Your task to perform on an android device: empty trash in google photos Image 0: 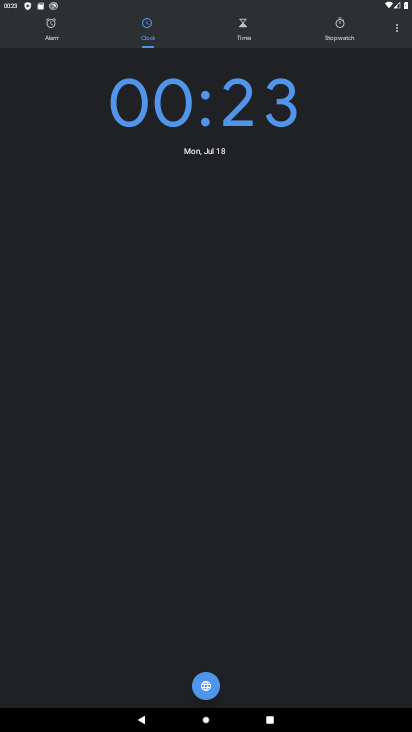
Step 0: press home button
Your task to perform on an android device: empty trash in google photos Image 1: 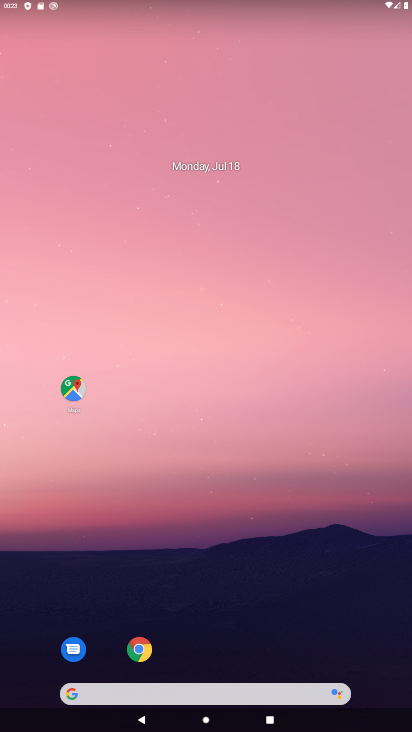
Step 1: drag from (214, 585) to (213, 48)
Your task to perform on an android device: empty trash in google photos Image 2: 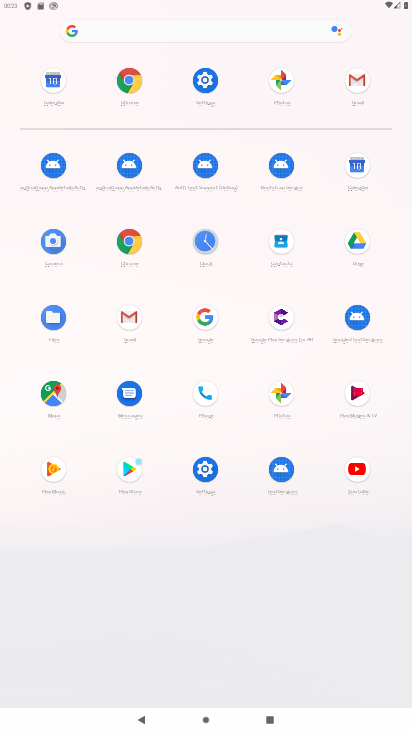
Step 2: click (290, 401)
Your task to perform on an android device: empty trash in google photos Image 3: 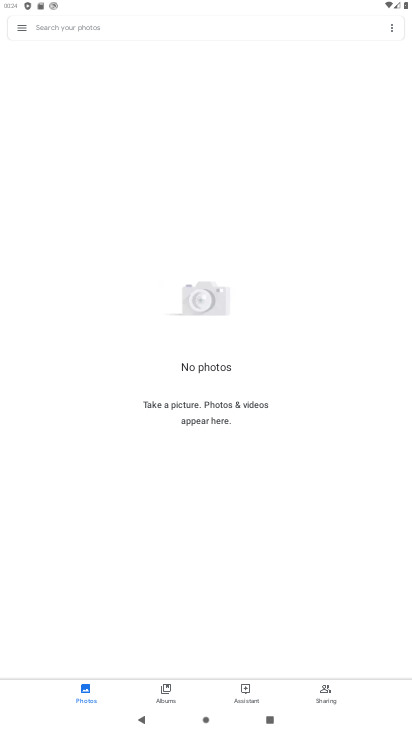
Step 3: click (16, 23)
Your task to perform on an android device: empty trash in google photos Image 4: 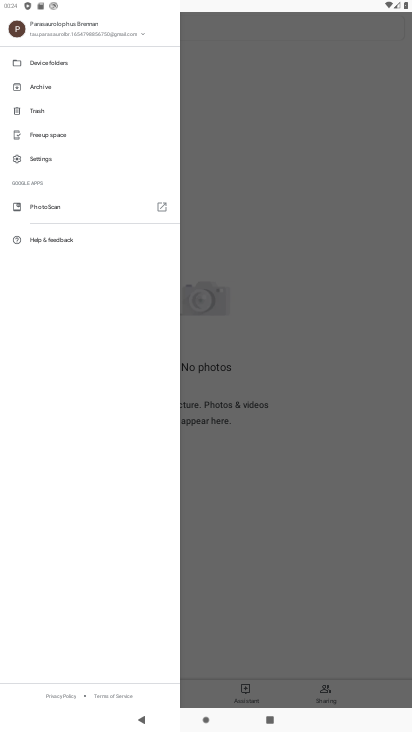
Step 4: click (26, 107)
Your task to perform on an android device: empty trash in google photos Image 5: 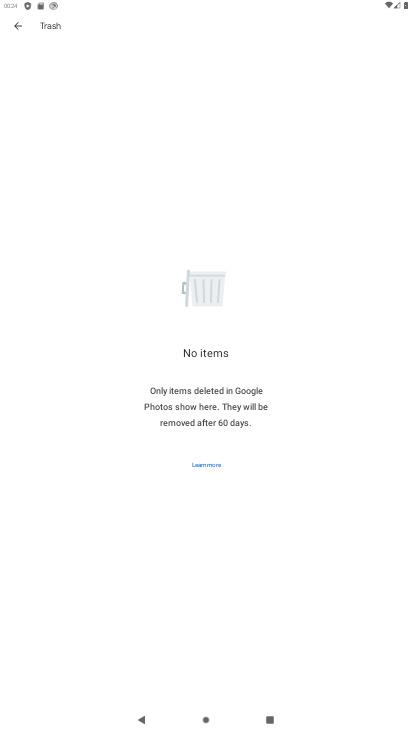
Step 5: task complete